Your task to perform on an android device: snooze an email in the gmail app Image 0: 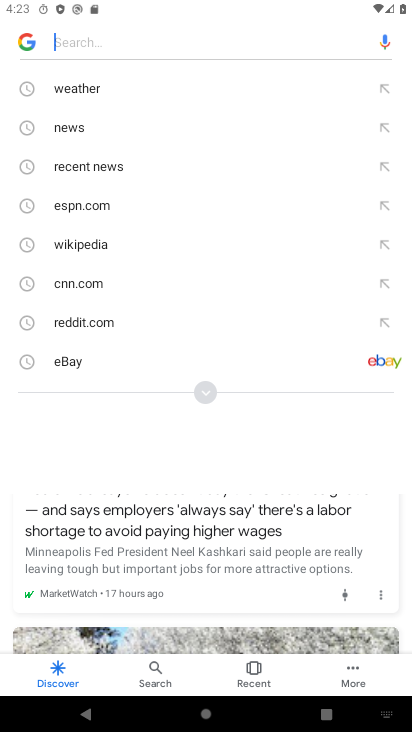
Step 0: press back button
Your task to perform on an android device: snooze an email in the gmail app Image 1: 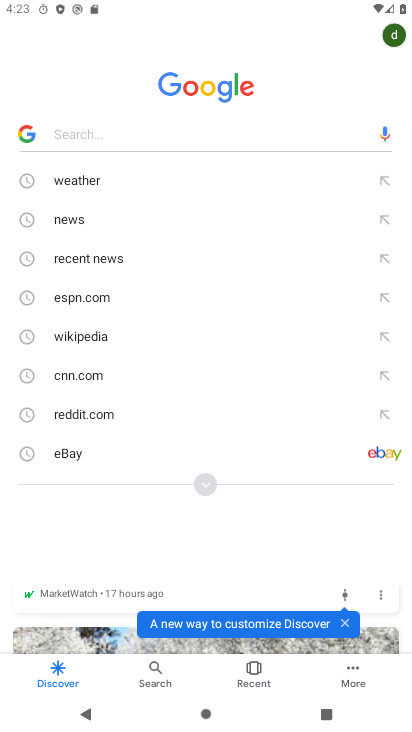
Step 1: press home button
Your task to perform on an android device: snooze an email in the gmail app Image 2: 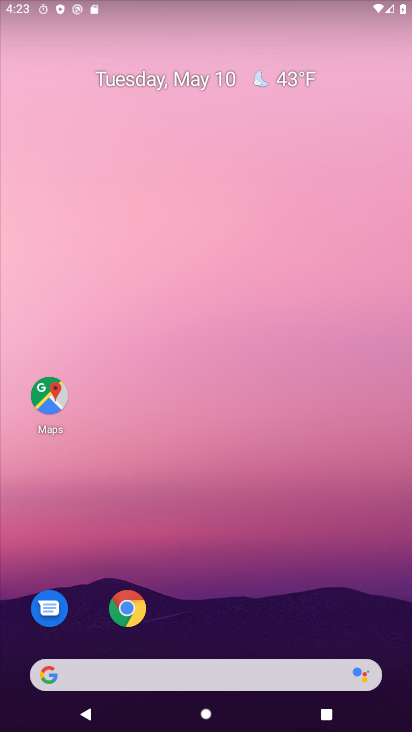
Step 2: drag from (308, 613) to (82, 98)
Your task to perform on an android device: snooze an email in the gmail app Image 3: 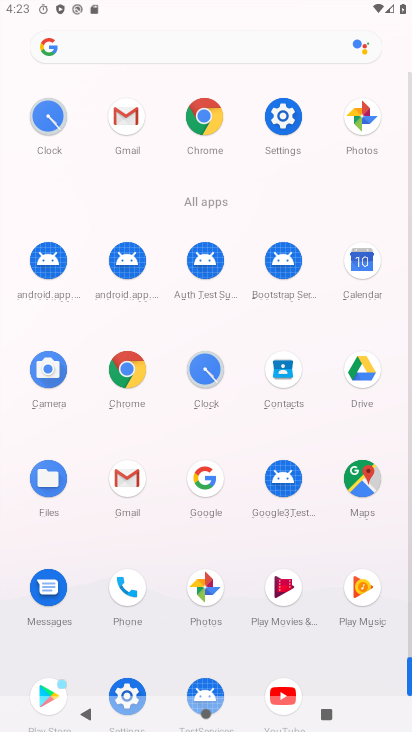
Step 3: click (119, 118)
Your task to perform on an android device: snooze an email in the gmail app Image 4: 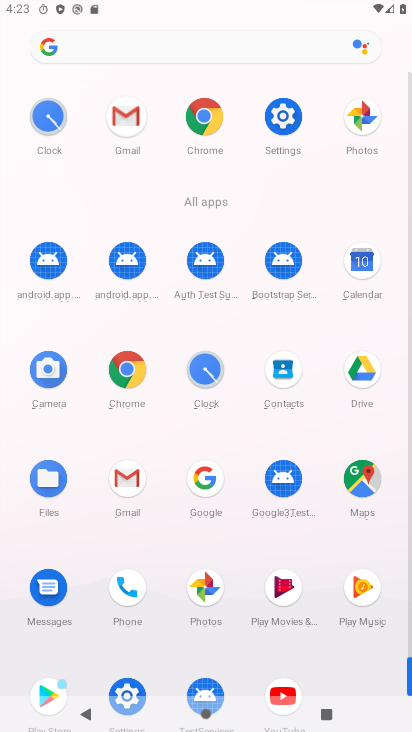
Step 4: click (126, 113)
Your task to perform on an android device: snooze an email in the gmail app Image 5: 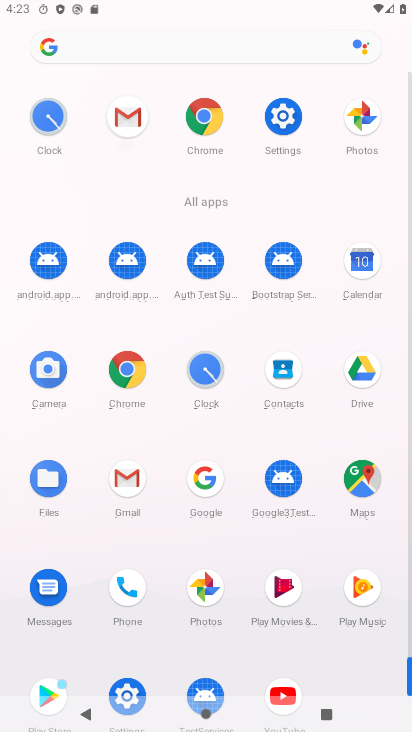
Step 5: click (136, 123)
Your task to perform on an android device: snooze an email in the gmail app Image 6: 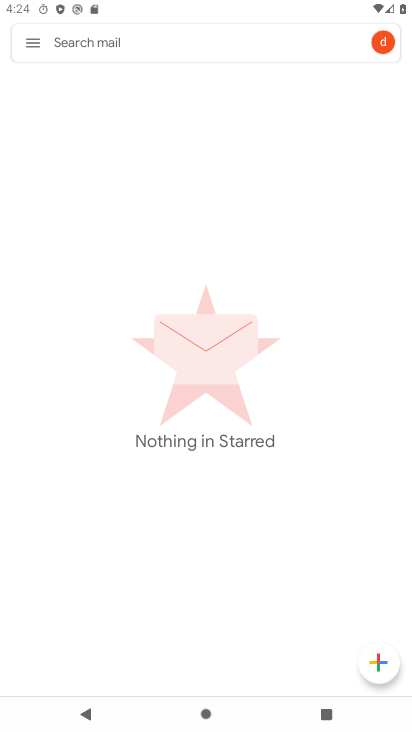
Step 6: click (28, 46)
Your task to perform on an android device: snooze an email in the gmail app Image 7: 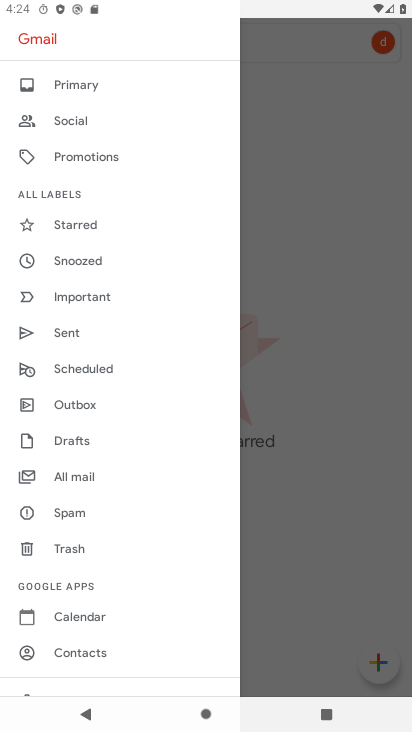
Step 7: click (75, 474)
Your task to perform on an android device: snooze an email in the gmail app Image 8: 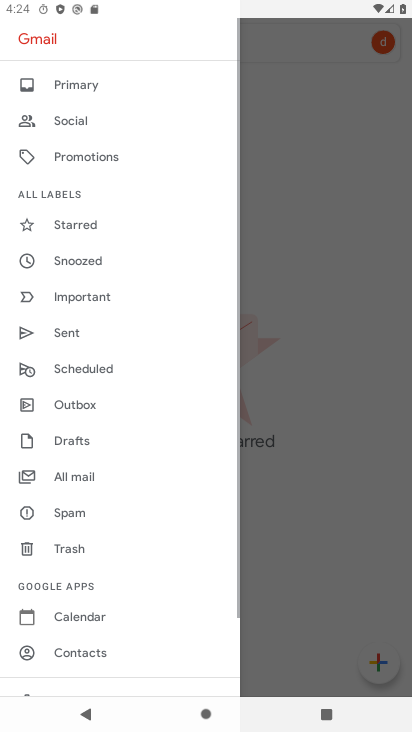
Step 8: click (75, 492)
Your task to perform on an android device: snooze an email in the gmail app Image 9: 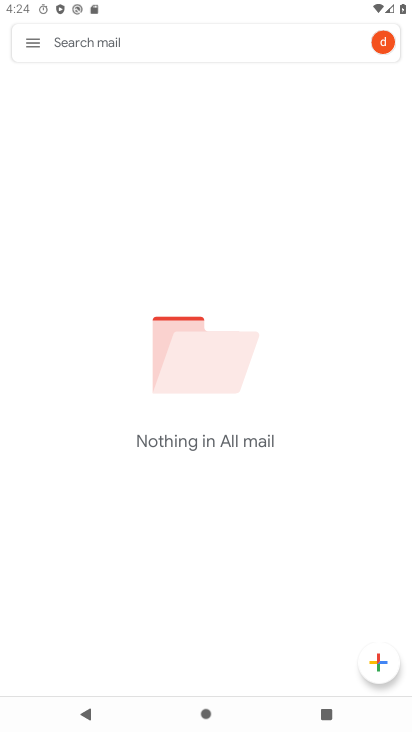
Step 9: task complete